Your task to perform on an android device: change timer sound Image 0: 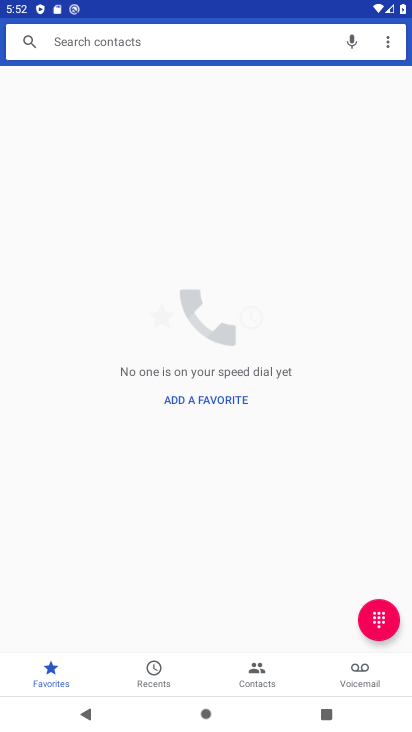
Step 0: press home button
Your task to perform on an android device: change timer sound Image 1: 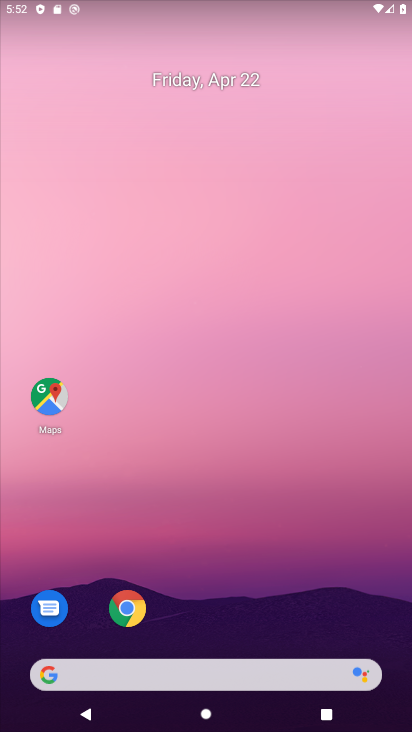
Step 1: click (120, 160)
Your task to perform on an android device: change timer sound Image 2: 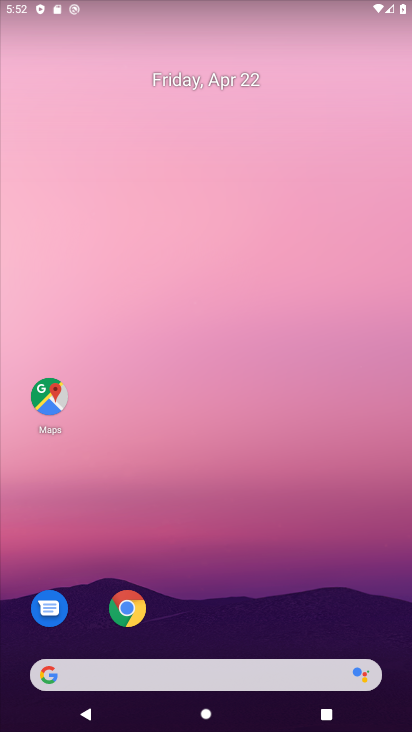
Step 2: drag from (202, 630) to (229, 203)
Your task to perform on an android device: change timer sound Image 3: 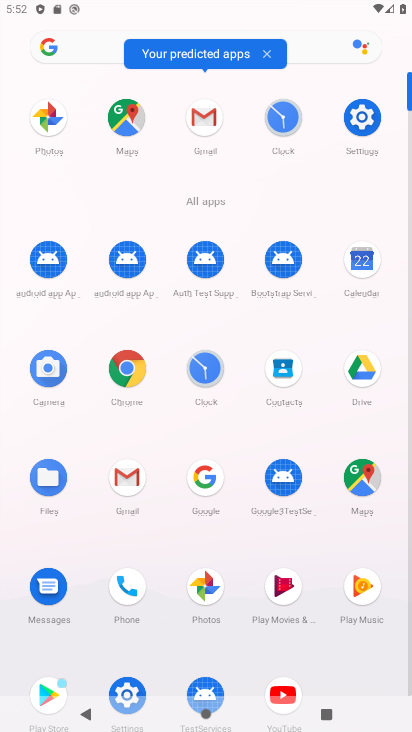
Step 3: click (194, 369)
Your task to perform on an android device: change timer sound Image 4: 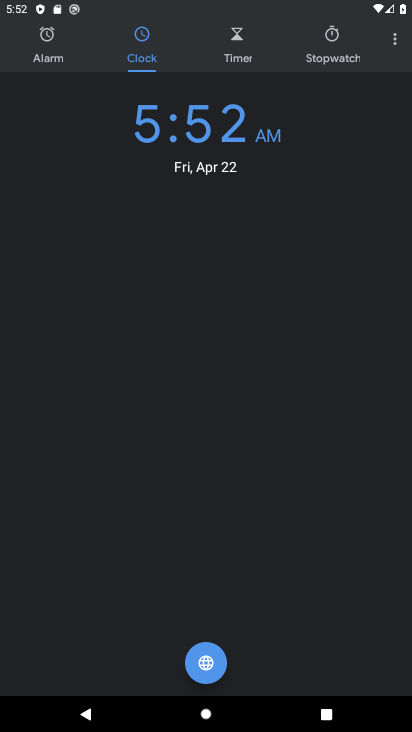
Step 4: click (398, 36)
Your task to perform on an android device: change timer sound Image 5: 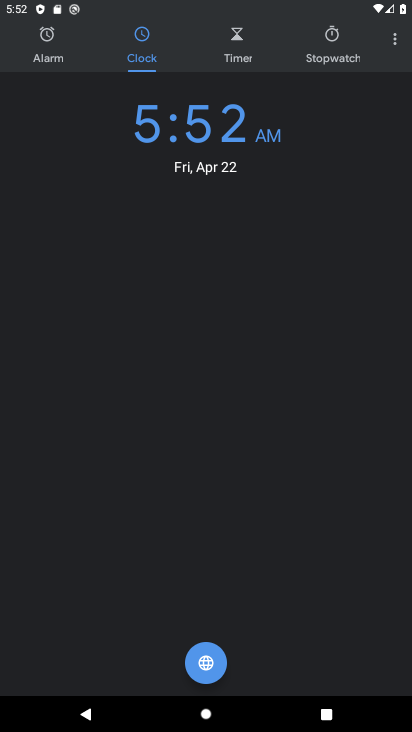
Step 5: click (398, 38)
Your task to perform on an android device: change timer sound Image 6: 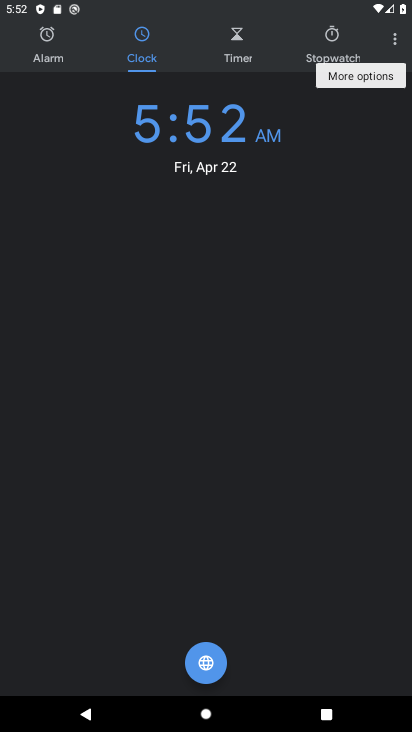
Step 6: click (393, 40)
Your task to perform on an android device: change timer sound Image 7: 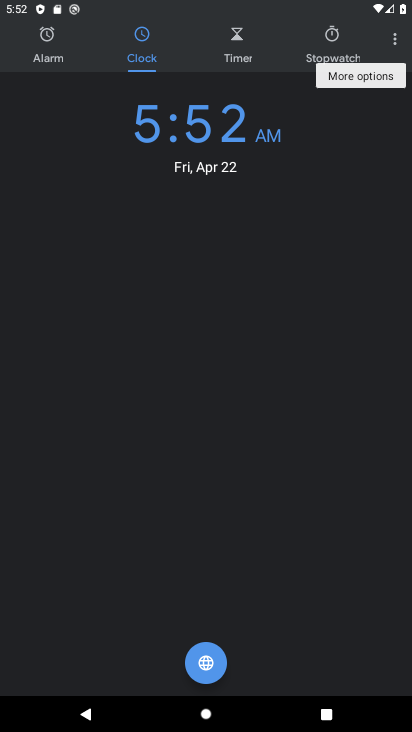
Step 7: click (397, 44)
Your task to perform on an android device: change timer sound Image 8: 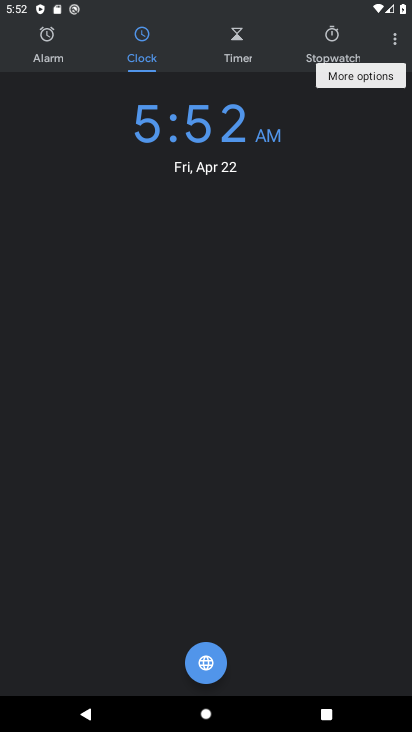
Step 8: click (397, 44)
Your task to perform on an android device: change timer sound Image 9: 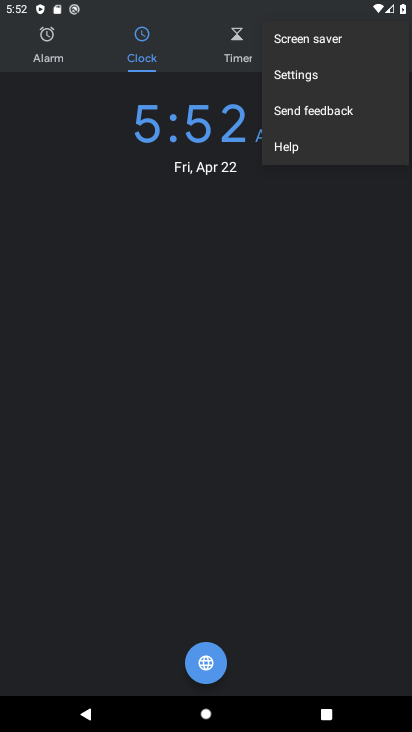
Step 9: click (303, 74)
Your task to perform on an android device: change timer sound Image 10: 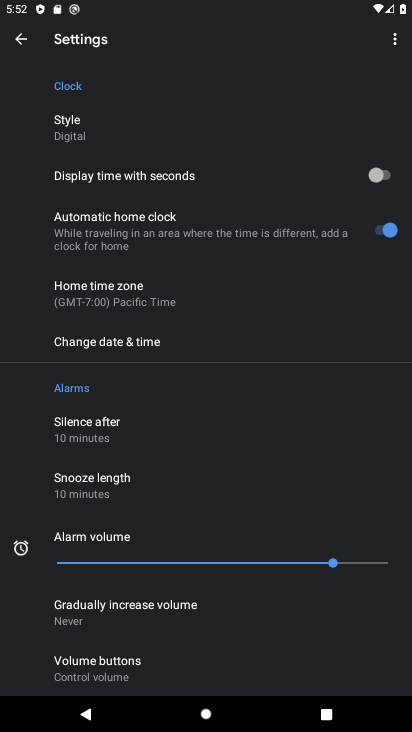
Step 10: drag from (160, 494) to (200, 125)
Your task to perform on an android device: change timer sound Image 11: 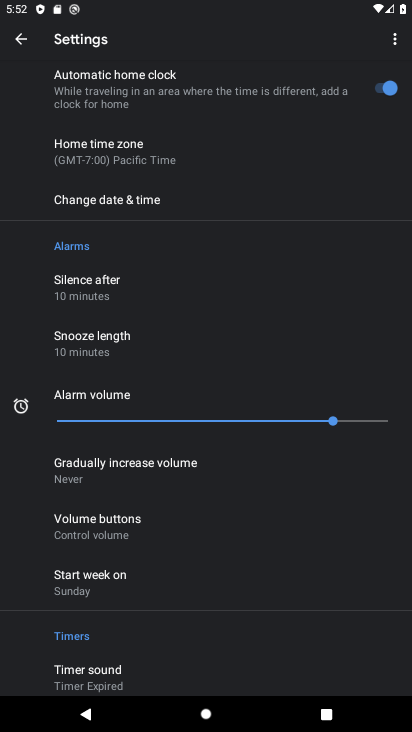
Step 11: drag from (202, 550) to (200, 206)
Your task to perform on an android device: change timer sound Image 12: 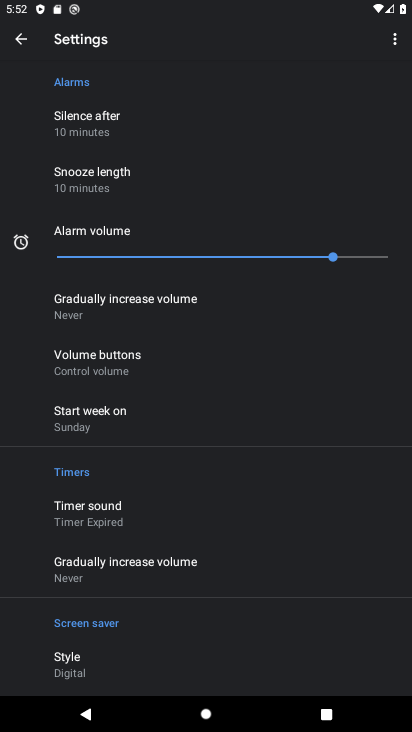
Step 12: click (102, 531)
Your task to perform on an android device: change timer sound Image 13: 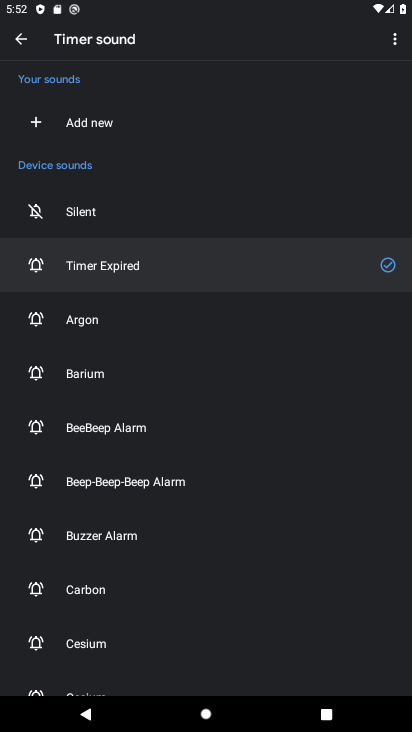
Step 13: click (41, 375)
Your task to perform on an android device: change timer sound Image 14: 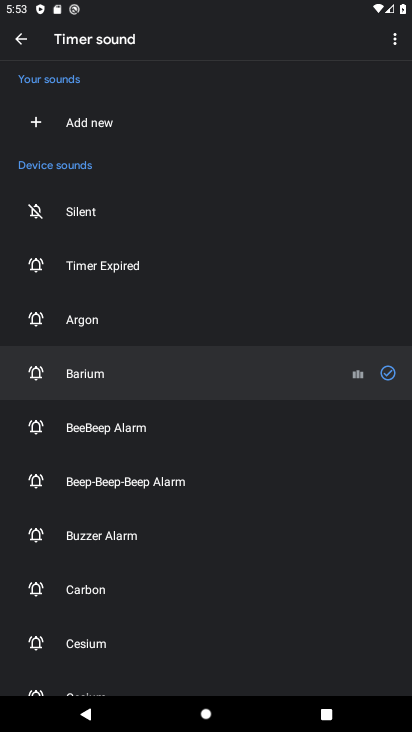
Step 14: task complete